Your task to perform on an android device: empty trash in google photos Image 0: 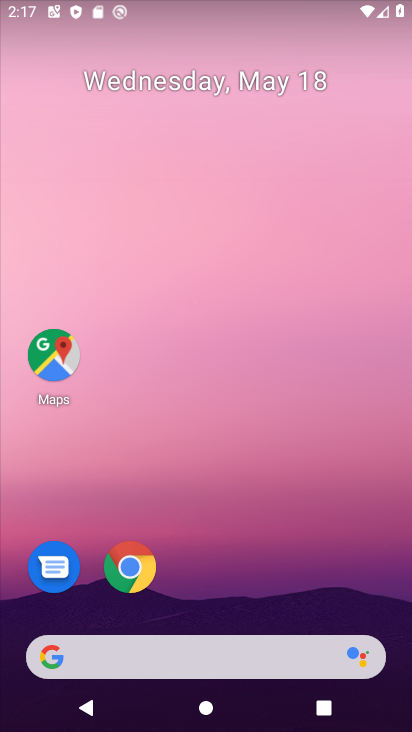
Step 0: drag from (309, 589) to (277, 172)
Your task to perform on an android device: empty trash in google photos Image 1: 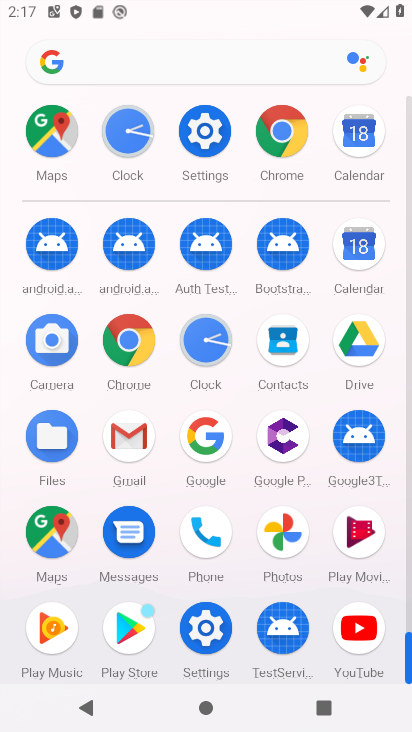
Step 1: click (288, 524)
Your task to perform on an android device: empty trash in google photos Image 2: 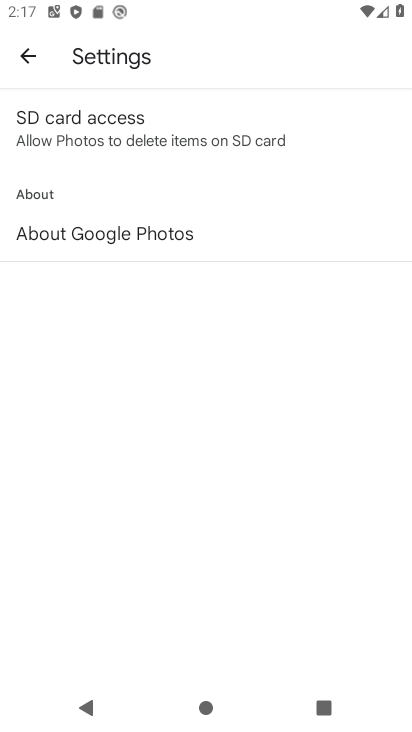
Step 2: click (37, 59)
Your task to perform on an android device: empty trash in google photos Image 3: 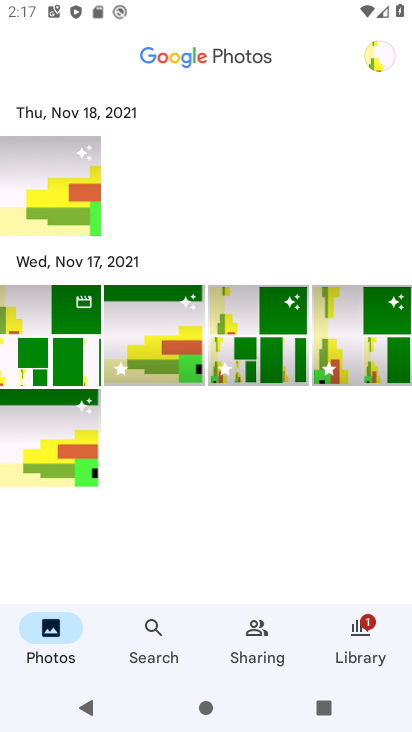
Step 3: click (365, 640)
Your task to perform on an android device: empty trash in google photos Image 4: 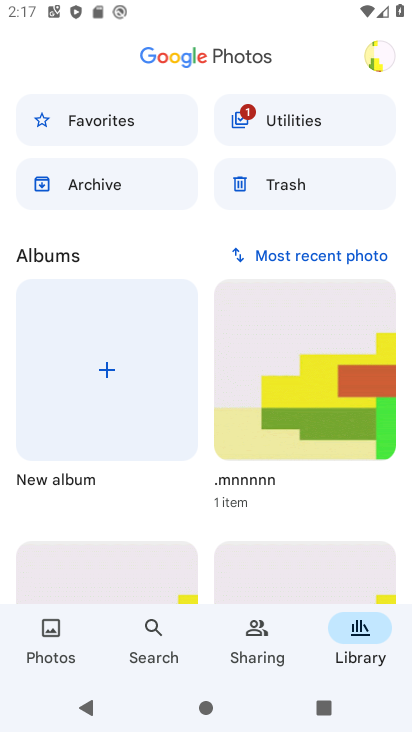
Step 4: click (275, 185)
Your task to perform on an android device: empty trash in google photos Image 5: 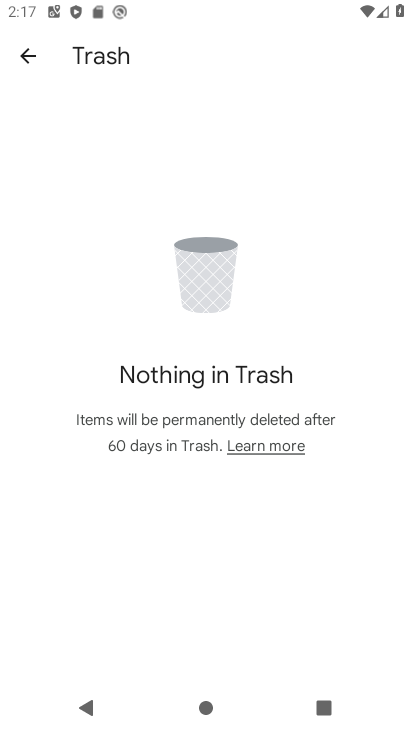
Step 5: task complete